Your task to perform on an android device: Open Google Maps Image 0: 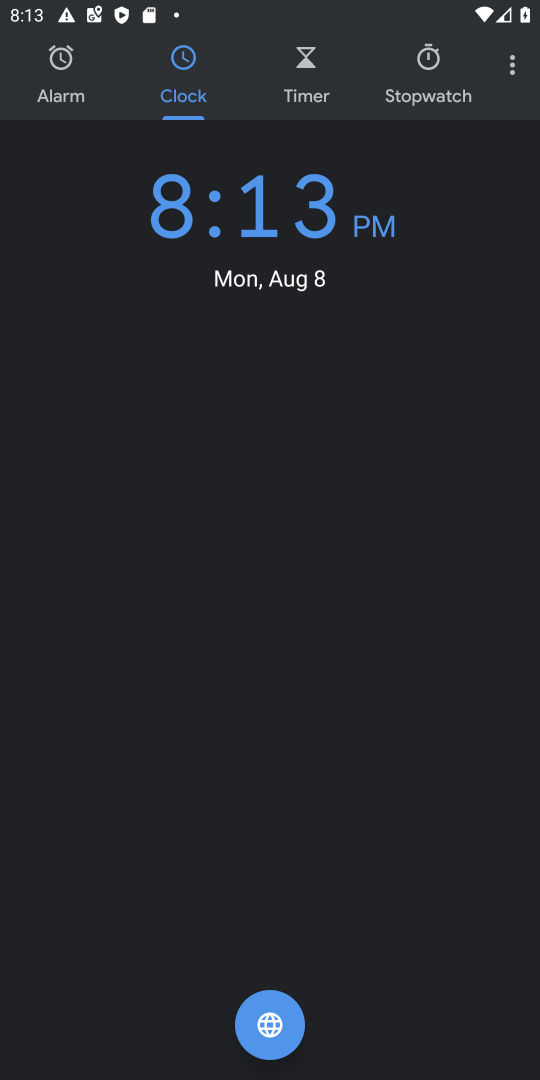
Step 0: press home button
Your task to perform on an android device: Open Google Maps Image 1: 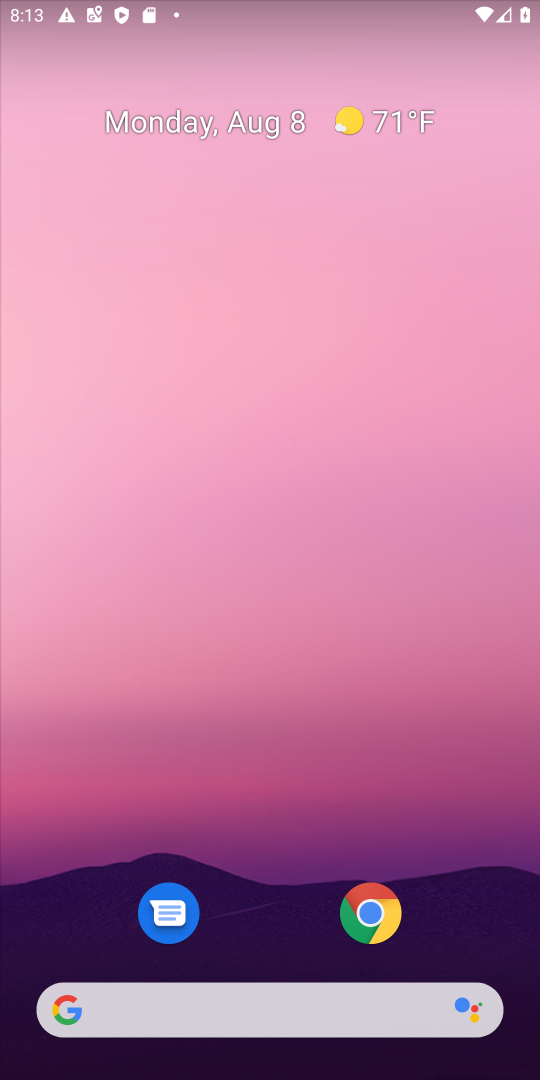
Step 1: drag from (244, 1003) to (323, 141)
Your task to perform on an android device: Open Google Maps Image 2: 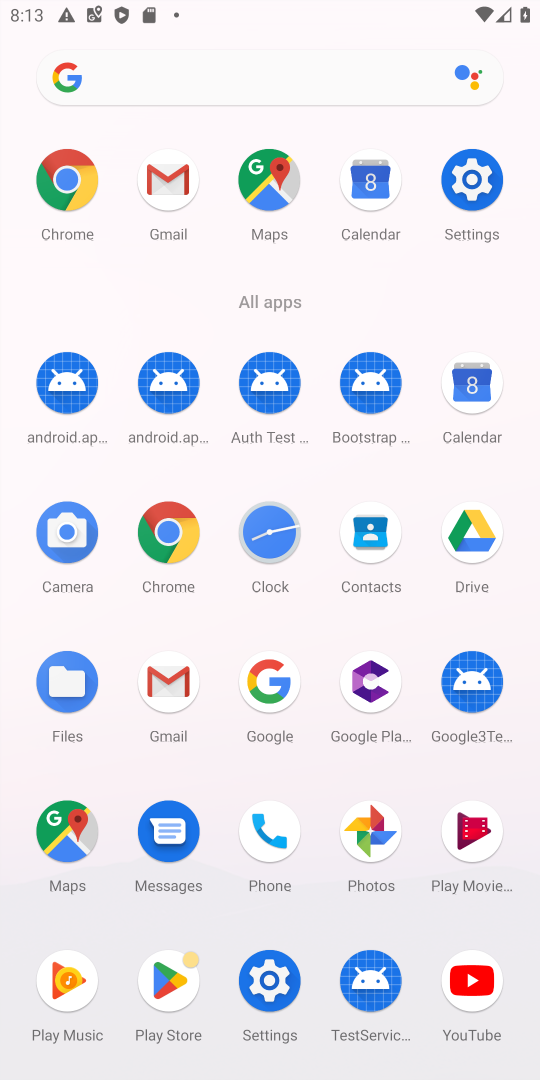
Step 2: click (68, 832)
Your task to perform on an android device: Open Google Maps Image 3: 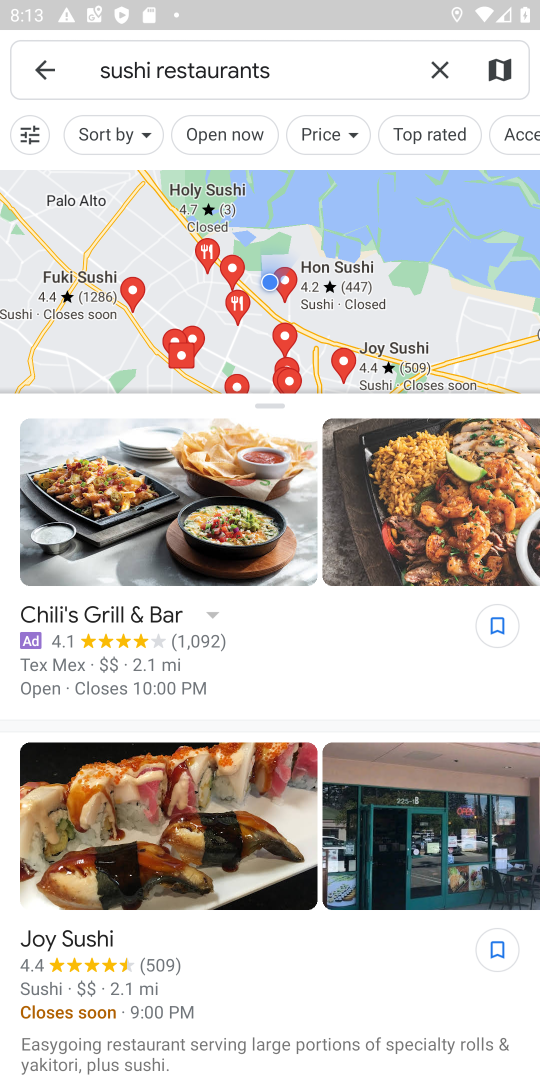
Step 3: task complete